Your task to perform on an android device: Open Amazon Image 0: 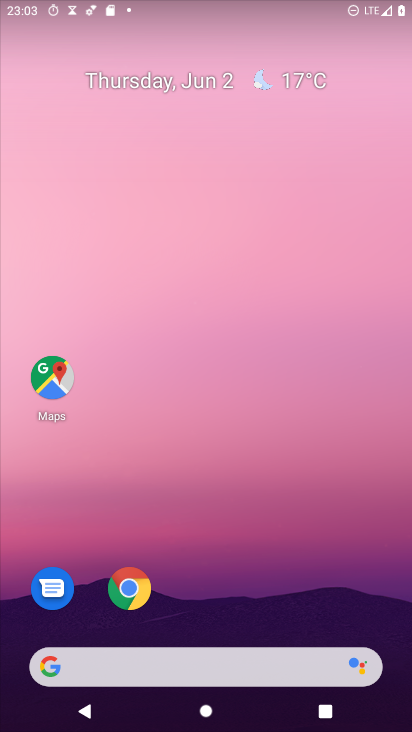
Step 0: click (126, 580)
Your task to perform on an android device: Open Amazon Image 1: 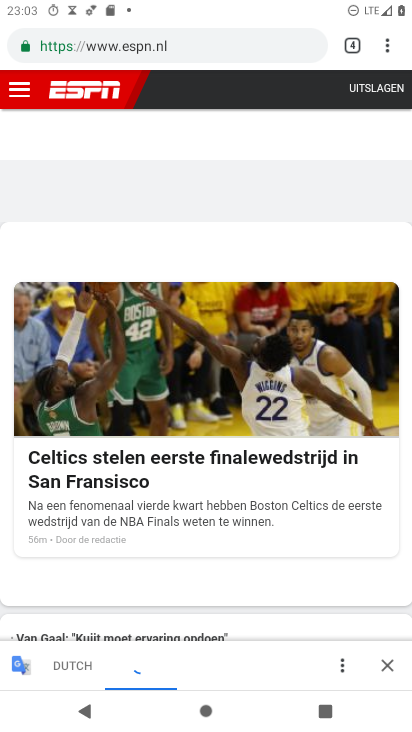
Step 1: click (355, 44)
Your task to perform on an android device: Open Amazon Image 2: 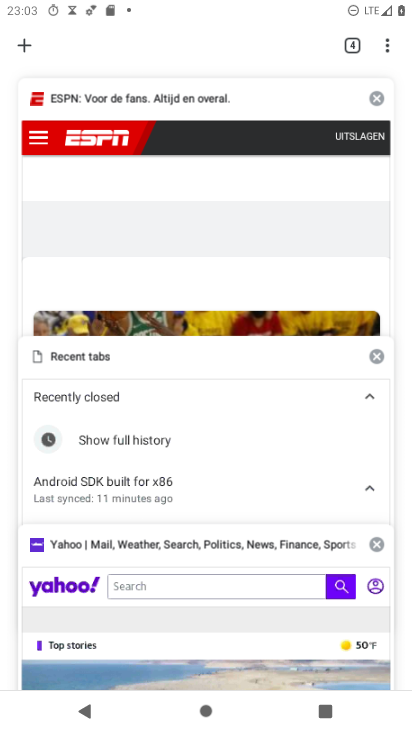
Step 2: click (22, 44)
Your task to perform on an android device: Open Amazon Image 3: 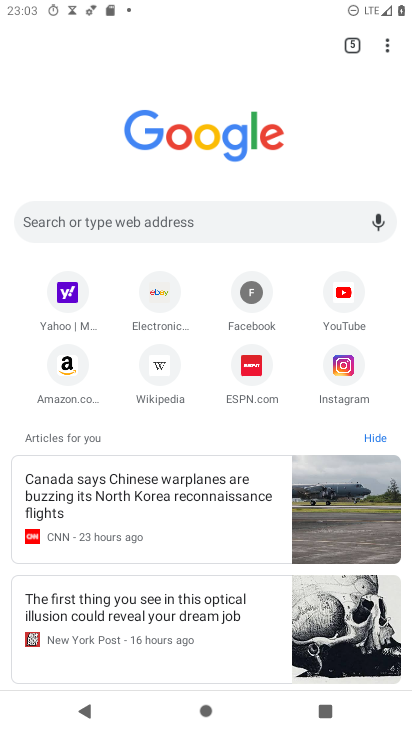
Step 3: click (54, 369)
Your task to perform on an android device: Open Amazon Image 4: 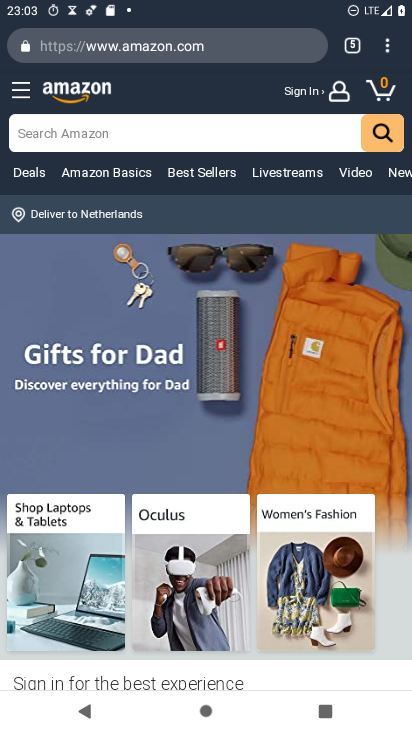
Step 4: task complete